Your task to perform on an android device: Open internet settings Image 0: 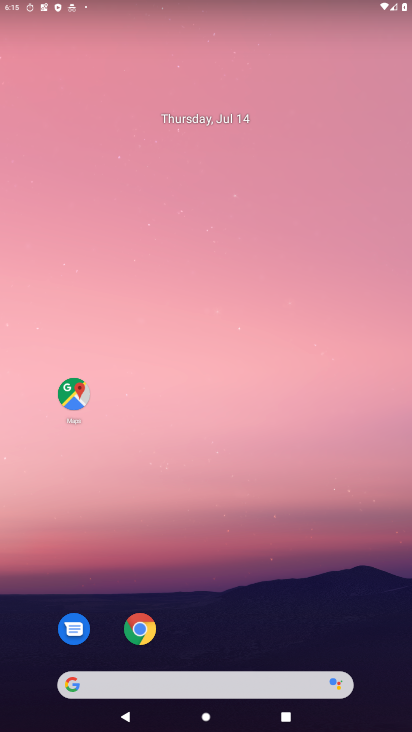
Step 0: drag from (306, 673) to (376, 64)
Your task to perform on an android device: Open internet settings Image 1: 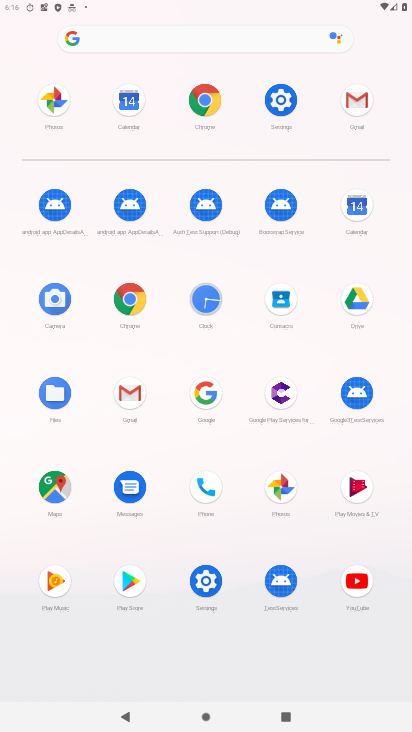
Step 1: click (280, 87)
Your task to perform on an android device: Open internet settings Image 2: 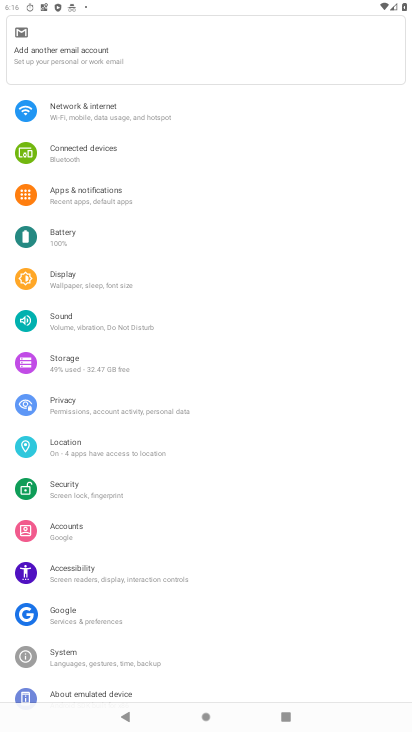
Step 2: click (78, 114)
Your task to perform on an android device: Open internet settings Image 3: 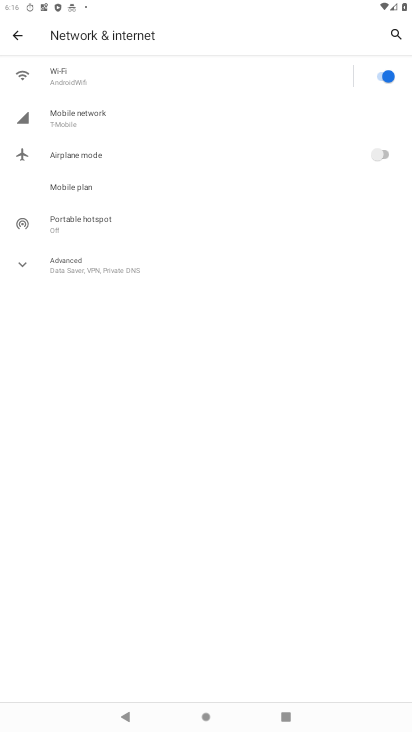
Step 3: click (104, 118)
Your task to perform on an android device: Open internet settings Image 4: 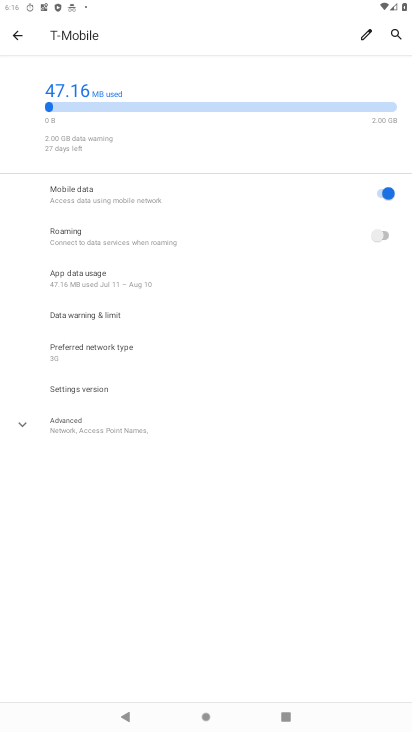
Step 4: task complete